Your task to perform on an android device: What's the weather? Image 0: 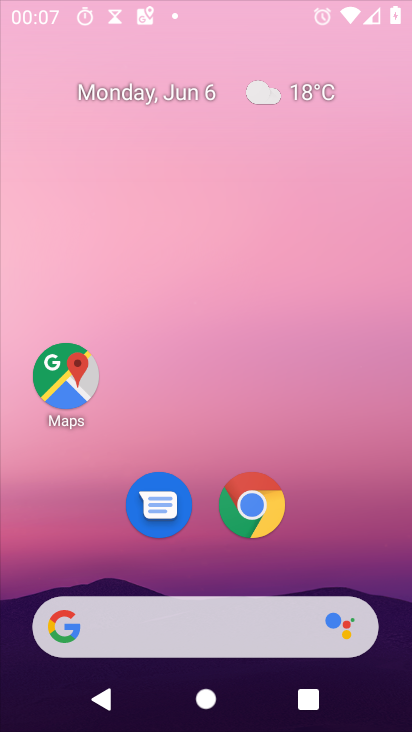
Step 0: click (253, 12)
Your task to perform on an android device: What's the weather? Image 1: 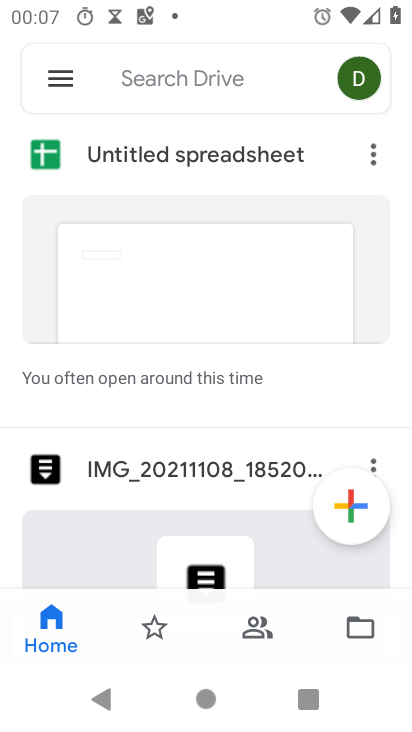
Step 1: press home button
Your task to perform on an android device: What's the weather? Image 2: 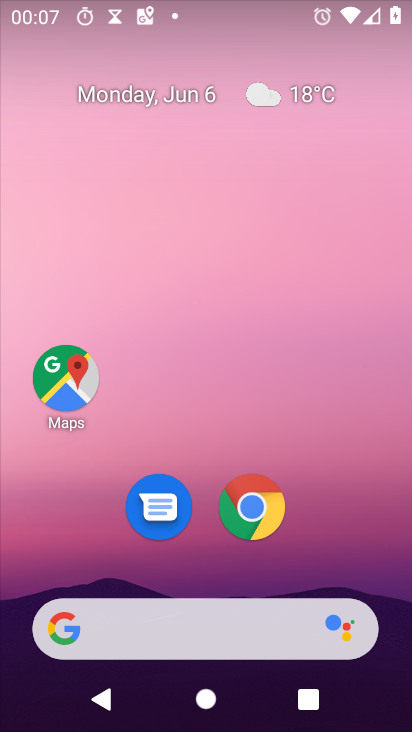
Step 2: click (185, 18)
Your task to perform on an android device: What's the weather? Image 3: 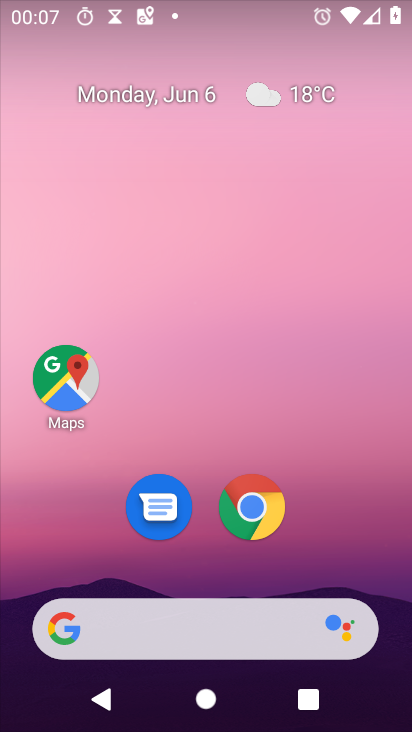
Step 3: drag from (218, 370) to (212, 92)
Your task to perform on an android device: What's the weather? Image 4: 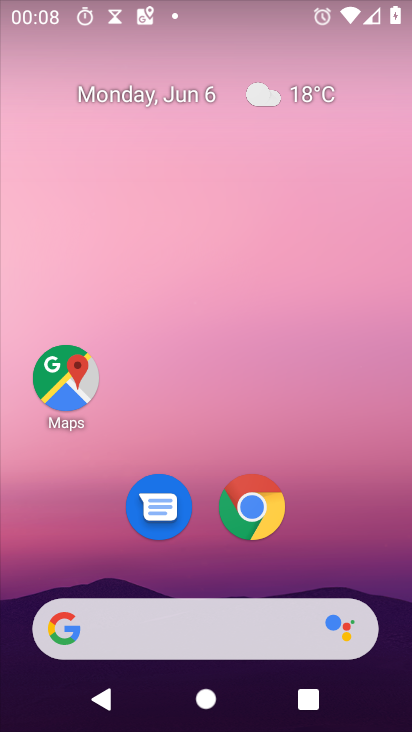
Step 4: drag from (233, 728) to (211, 36)
Your task to perform on an android device: What's the weather? Image 5: 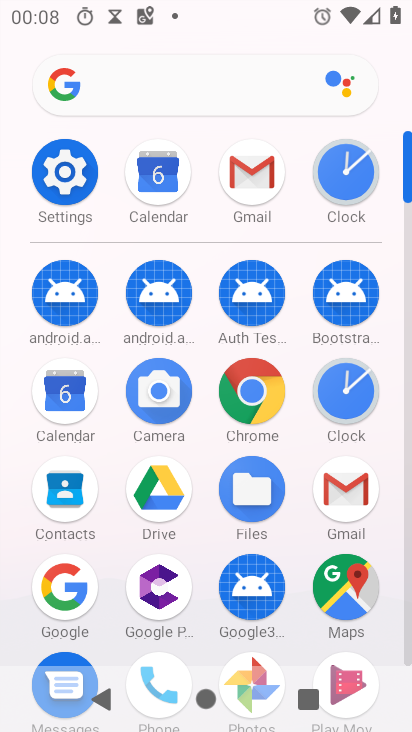
Step 5: click (63, 580)
Your task to perform on an android device: What's the weather? Image 6: 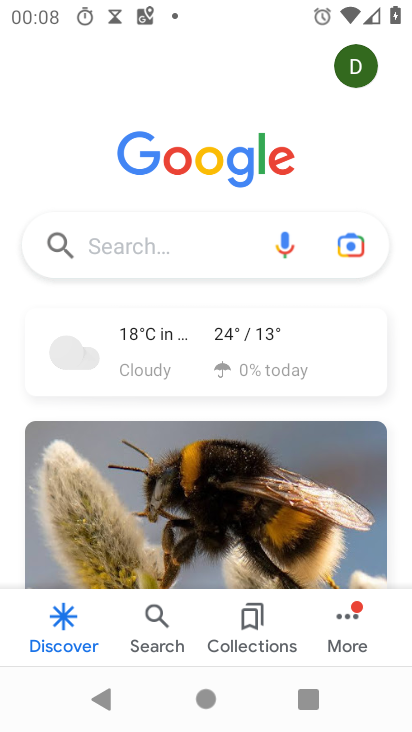
Step 6: click (181, 335)
Your task to perform on an android device: What's the weather? Image 7: 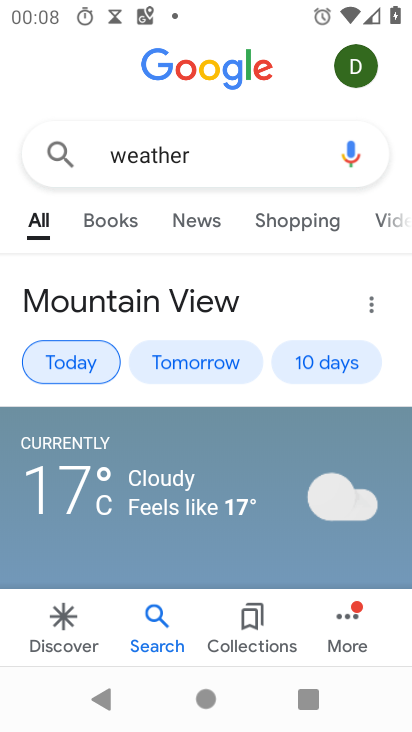
Step 7: click (83, 362)
Your task to perform on an android device: What's the weather? Image 8: 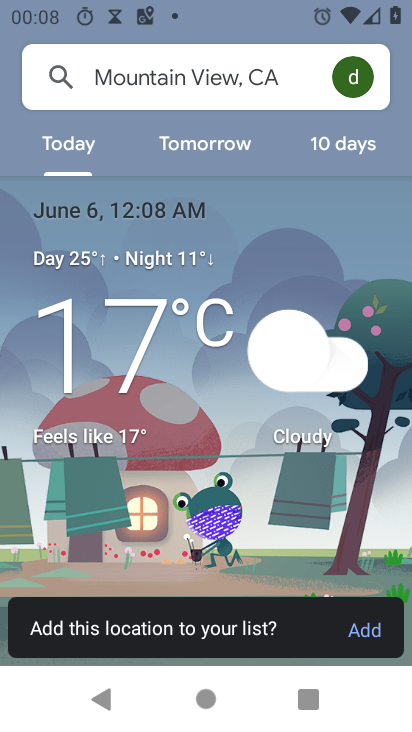
Step 8: task complete